Your task to perform on an android device: find snoozed emails in the gmail app Image 0: 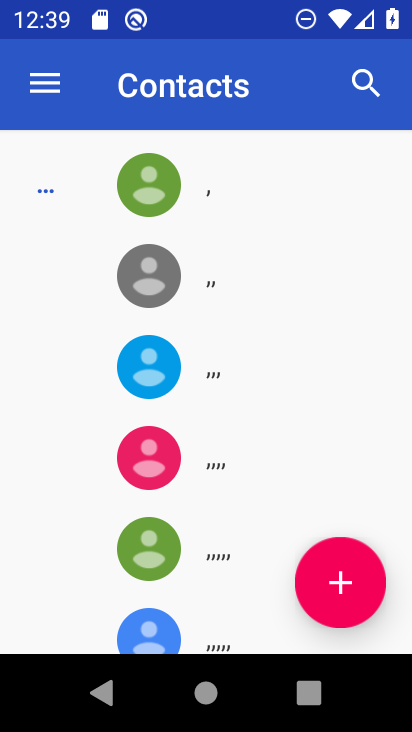
Step 0: press home button
Your task to perform on an android device: find snoozed emails in the gmail app Image 1: 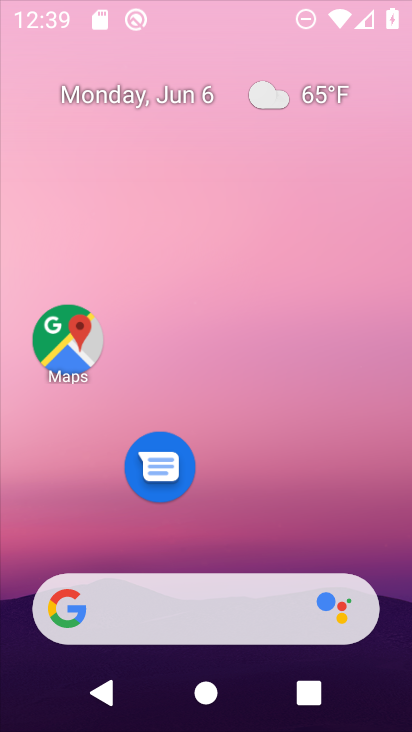
Step 1: drag from (362, 533) to (334, 43)
Your task to perform on an android device: find snoozed emails in the gmail app Image 2: 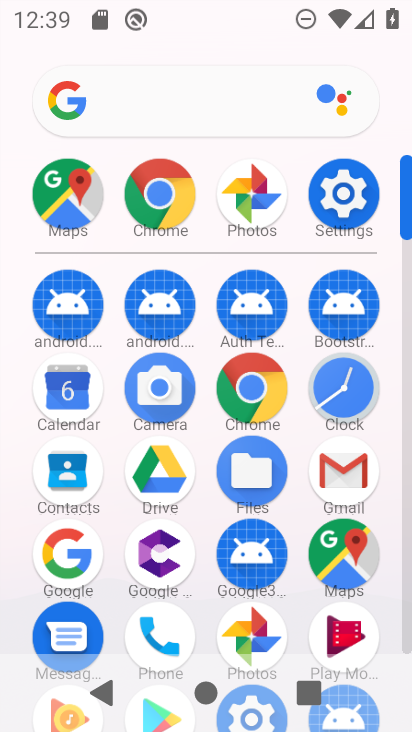
Step 2: click (344, 490)
Your task to perform on an android device: find snoozed emails in the gmail app Image 3: 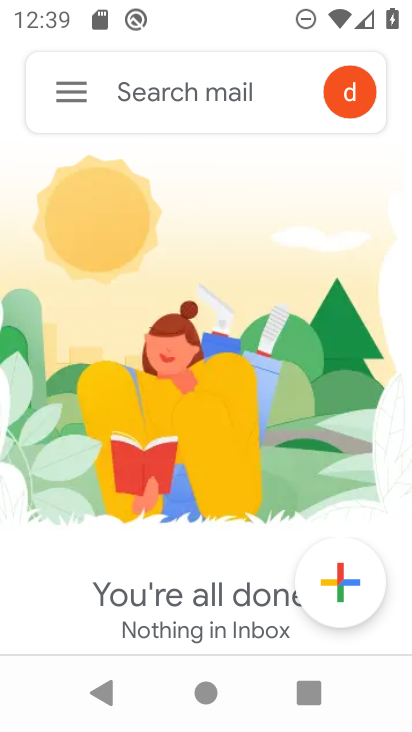
Step 3: click (69, 93)
Your task to perform on an android device: find snoozed emails in the gmail app Image 4: 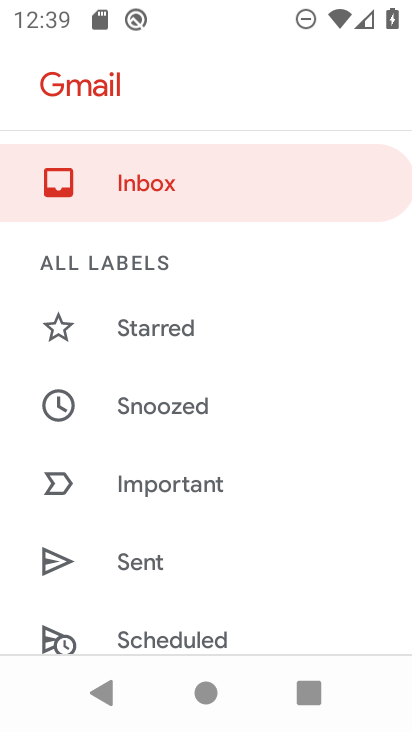
Step 4: task complete